Your task to perform on an android device: Go to CNN.com Image 0: 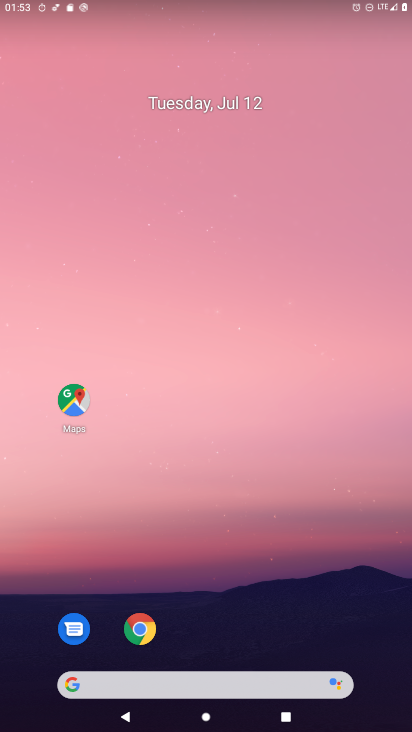
Step 0: click (134, 695)
Your task to perform on an android device: Go to CNN.com Image 1: 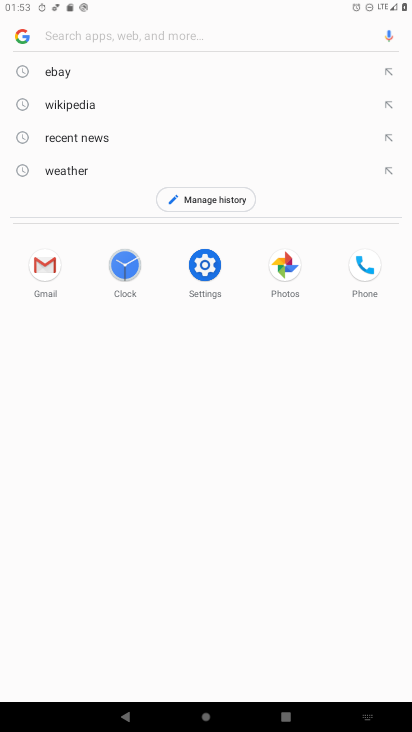
Step 1: type "CNN.com"
Your task to perform on an android device: Go to CNN.com Image 2: 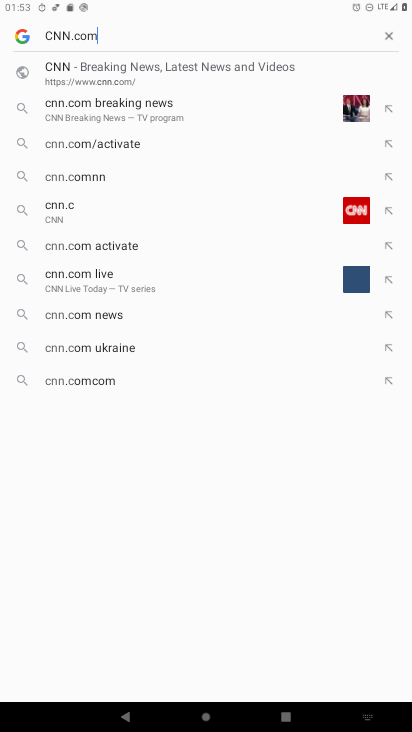
Step 2: type ""
Your task to perform on an android device: Go to CNN.com Image 3: 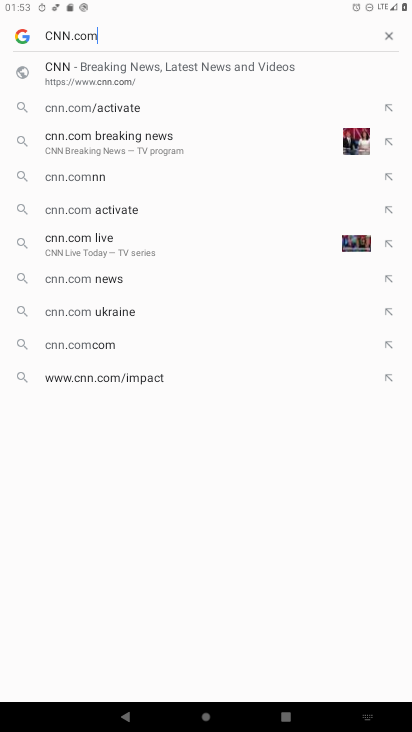
Step 3: click (67, 72)
Your task to perform on an android device: Go to CNN.com Image 4: 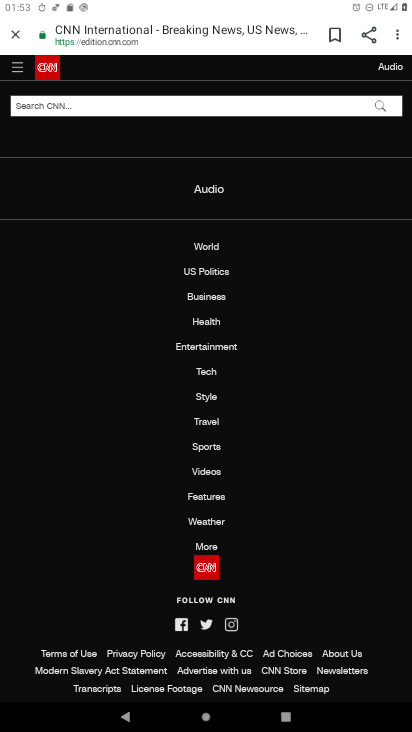
Step 4: task complete